Your task to perform on an android device: Go to privacy settings Image 0: 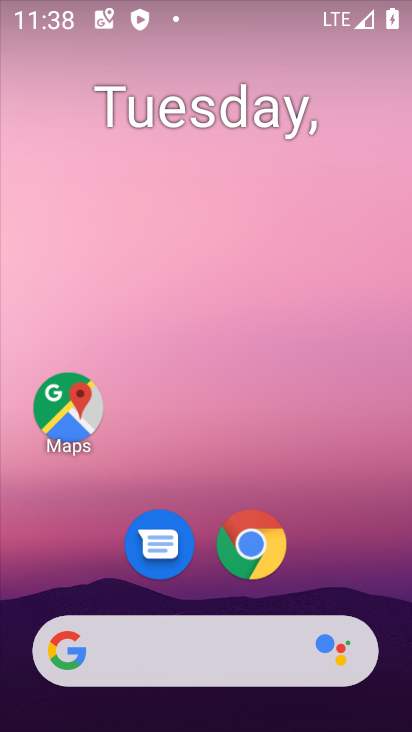
Step 0: drag from (379, 620) to (302, 98)
Your task to perform on an android device: Go to privacy settings Image 1: 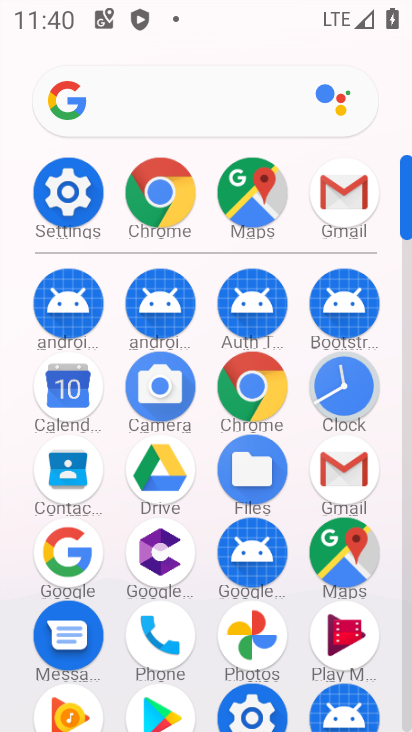
Step 1: click (87, 205)
Your task to perform on an android device: Go to privacy settings Image 2: 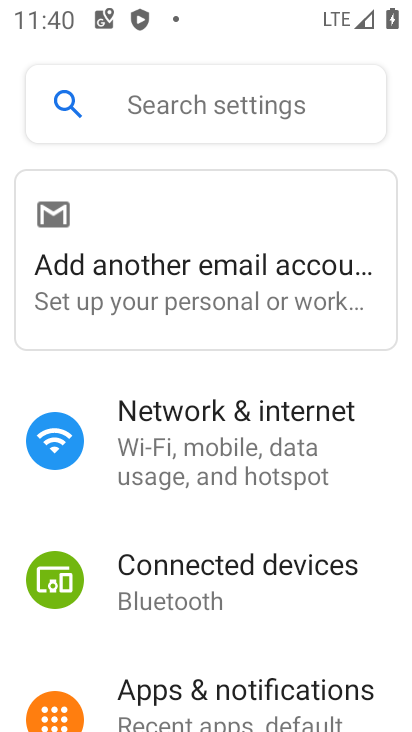
Step 2: drag from (172, 656) to (233, 51)
Your task to perform on an android device: Go to privacy settings Image 3: 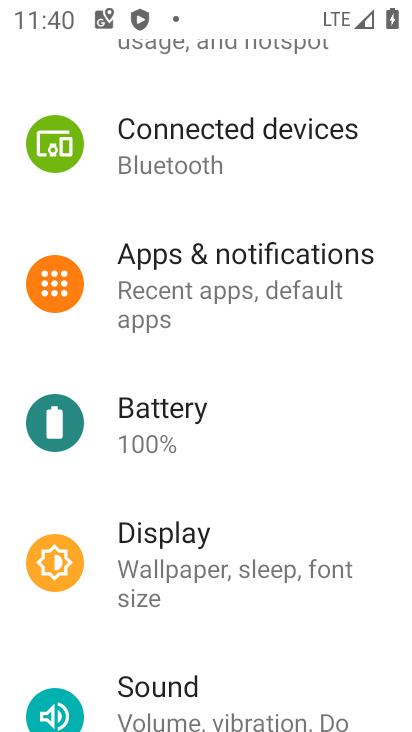
Step 3: drag from (204, 668) to (242, 129)
Your task to perform on an android device: Go to privacy settings Image 4: 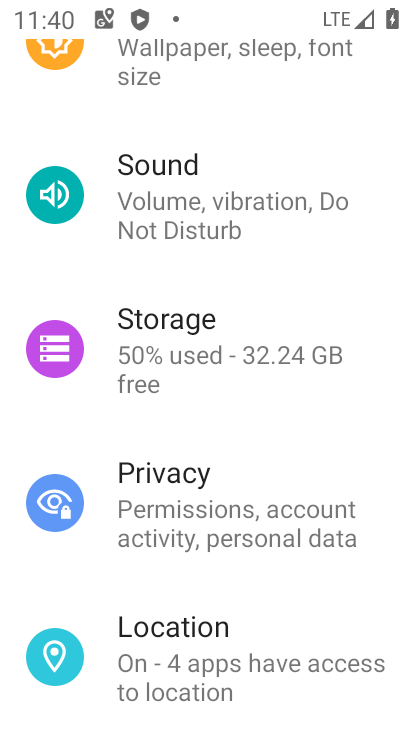
Step 4: click (188, 525)
Your task to perform on an android device: Go to privacy settings Image 5: 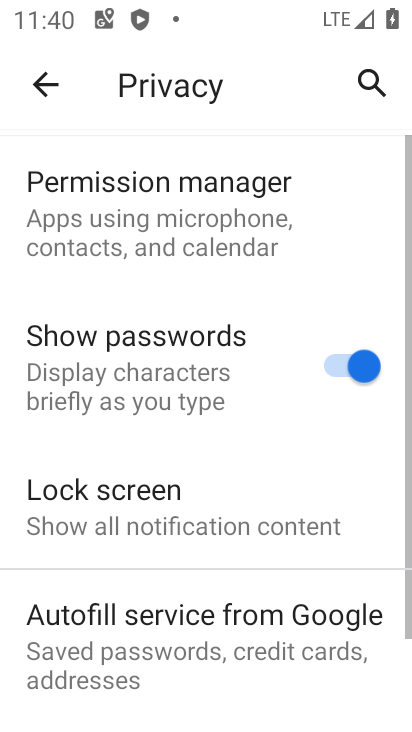
Step 5: task complete